Your task to perform on an android device: Open privacy settings Image 0: 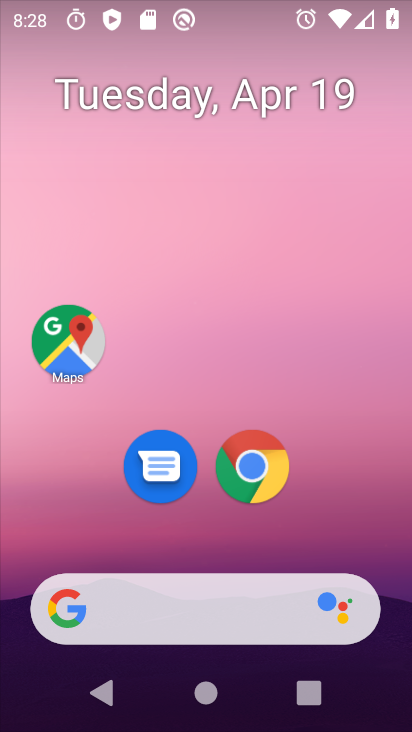
Step 0: drag from (339, 390) to (316, 107)
Your task to perform on an android device: Open privacy settings Image 1: 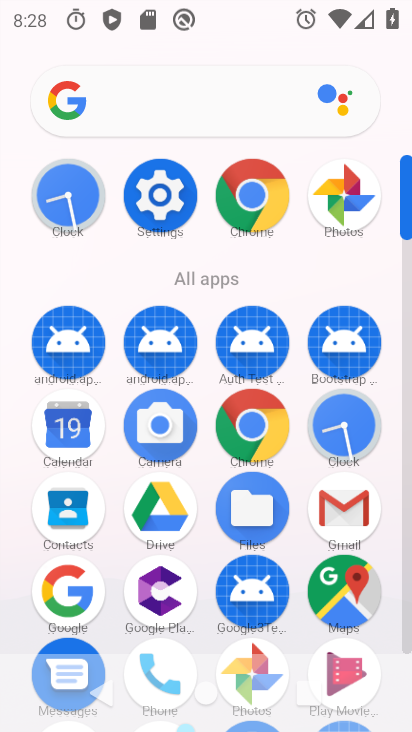
Step 1: click (170, 198)
Your task to perform on an android device: Open privacy settings Image 2: 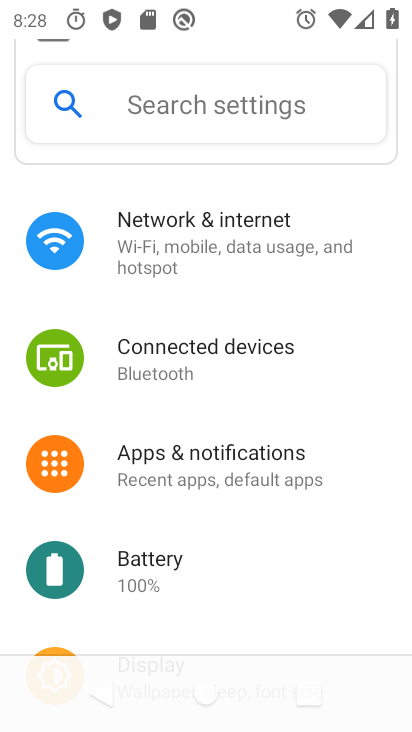
Step 2: drag from (219, 550) to (203, 256)
Your task to perform on an android device: Open privacy settings Image 3: 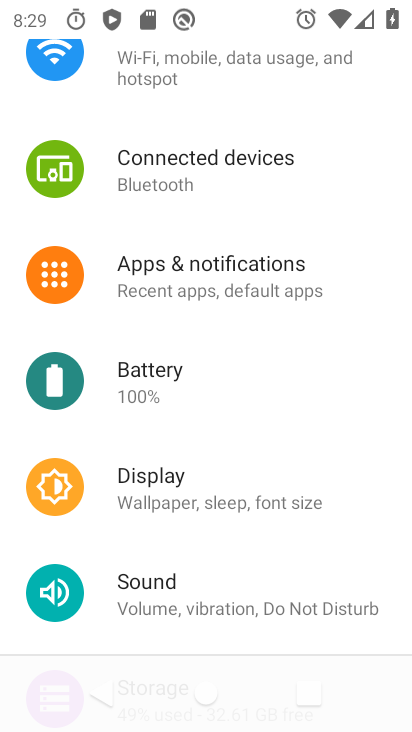
Step 3: drag from (203, 613) to (187, 206)
Your task to perform on an android device: Open privacy settings Image 4: 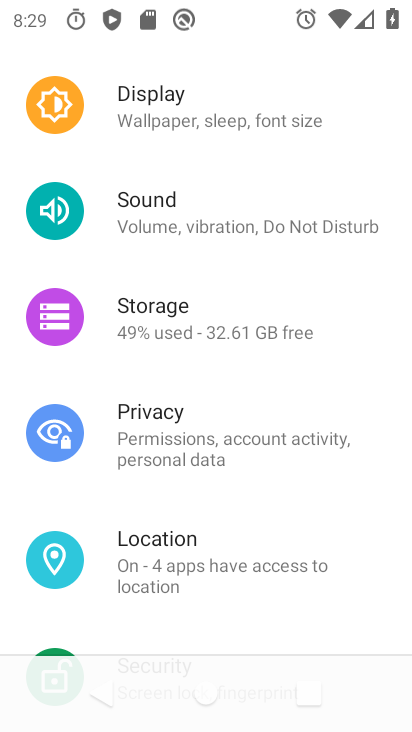
Step 4: click (193, 468)
Your task to perform on an android device: Open privacy settings Image 5: 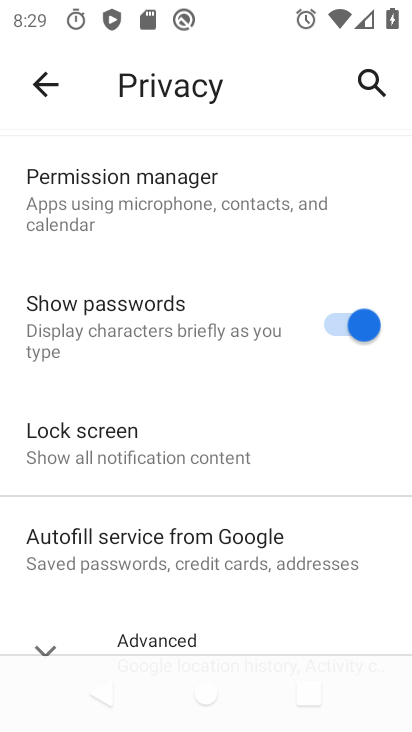
Step 5: task complete